Your task to perform on an android device: Check the weather Image 0: 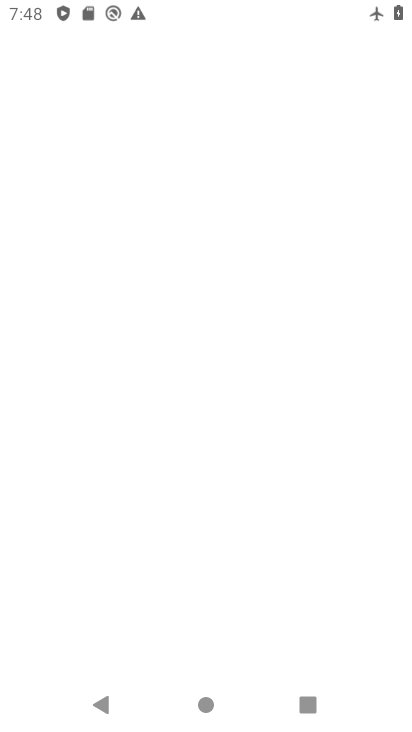
Step 0: press back button
Your task to perform on an android device: Check the weather Image 1: 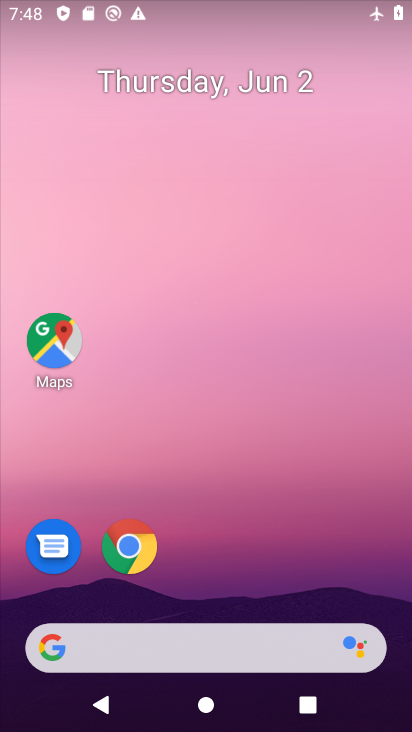
Step 1: task complete